Your task to perform on an android device: Go to calendar. Show me events next week Image 0: 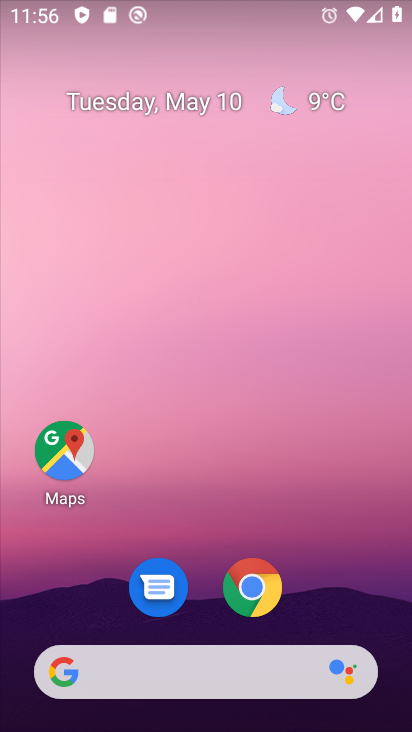
Step 0: drag from (325, 606) to (328, 3)
Your task to perform on an android device: Go to calendar. Show me events next week Image 1: 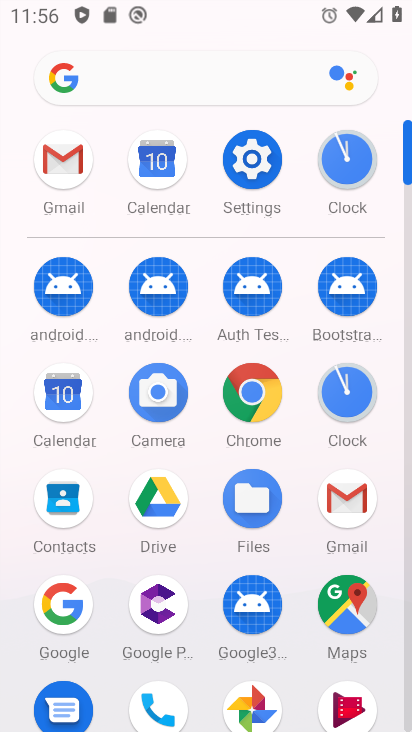
Step 1: click (143, 168)
Your task to perform on an android device: Go to calendar. Show me events next week Image 2: 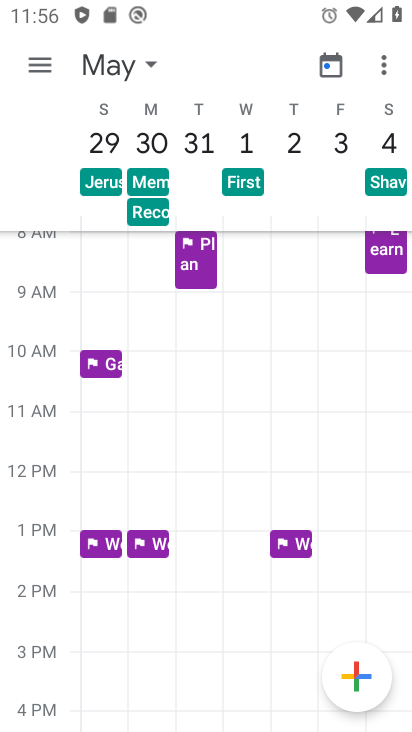
Step 2: click (151, 61)
Your task to perform on an android device: Go to calendar. Show me events next week Image 3: 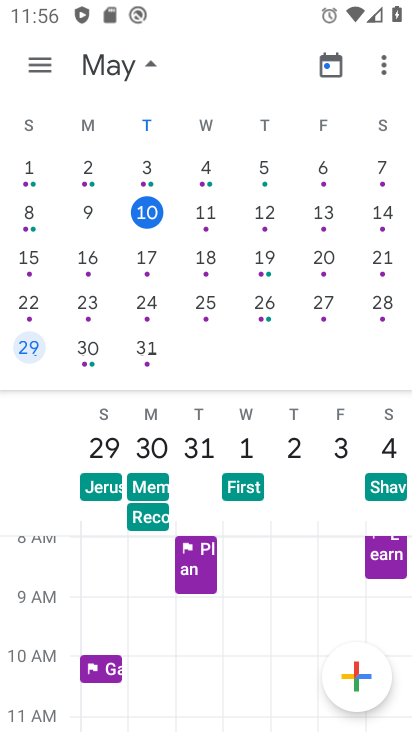
Step 3: click (150, 220)
Your task to perform on an android device: Go to calendar. Show me events next week Image 4: 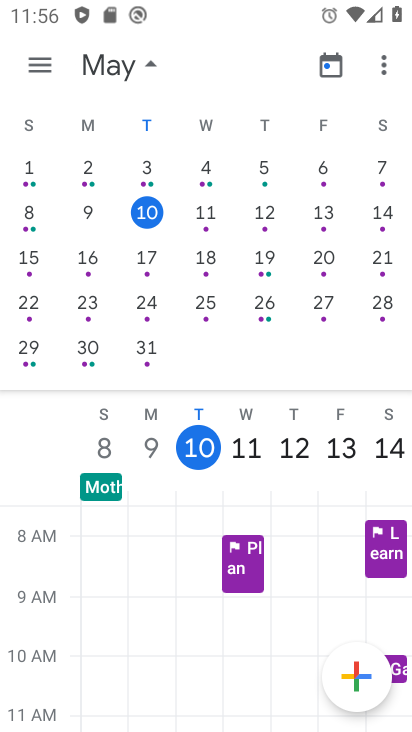
Step 4: click (36, 66)
Your task to perform on an android device: Go to calendar. Show me events next week Image 5: 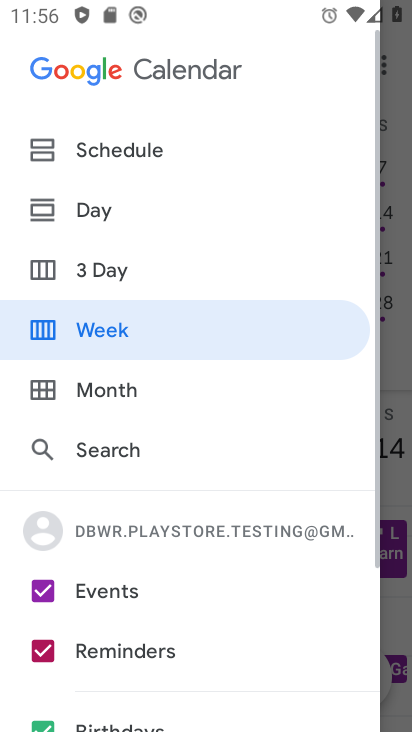
Step 5: click (69, 154)
Your task to perform on an android device: Go to calendar. Show me events next week Image 6: 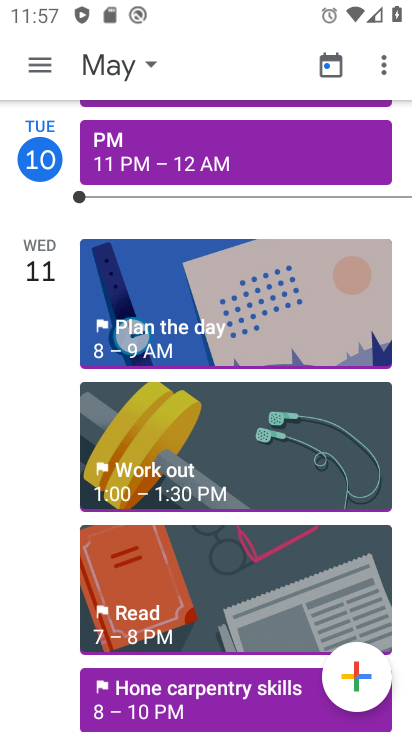
Step 6: click (46, 68)
Your task to perform on an android device: Go to calendar. Show me events next week Image 7: 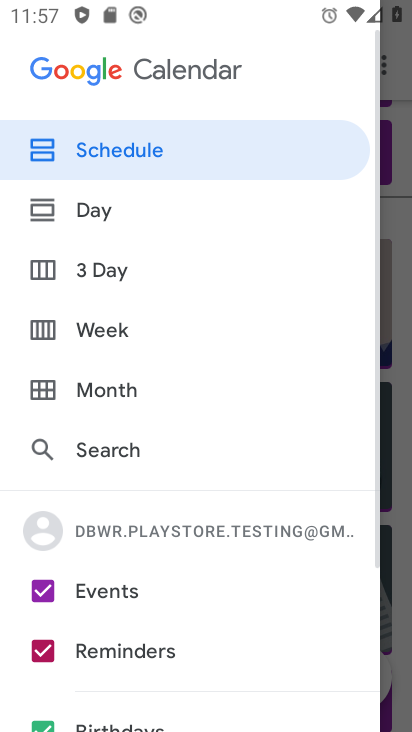
Step 7: click (98, 326)
Your task to perform on an android device: Go to calendar. Show me events next week Image 8: 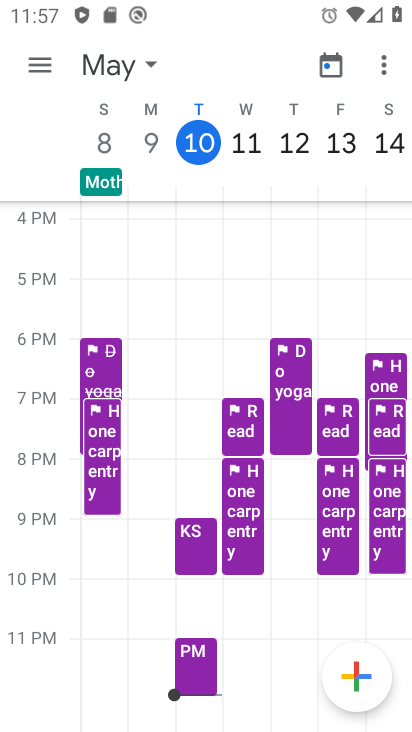
Step 8: task complete